Your task to perform on an android device: turn off picture-in-picture Image 0: 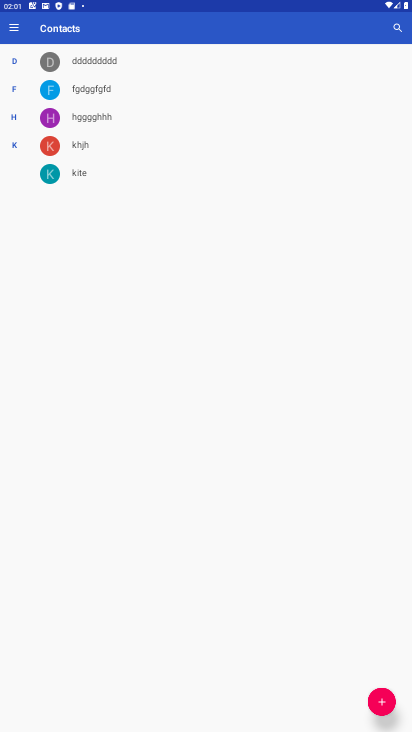
Step 0: press home button
Your task to perform on an android device: turn off picture-in-picture Image 1: 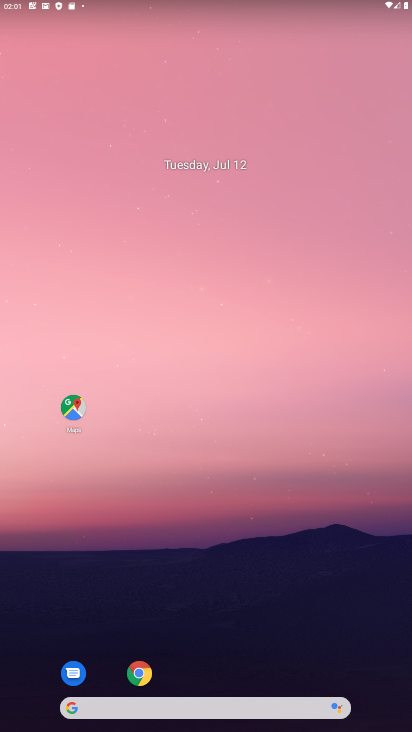
Step 1: click (141, 671)
Your task to perform on an android device: turn off picture-in-picture Image 2: 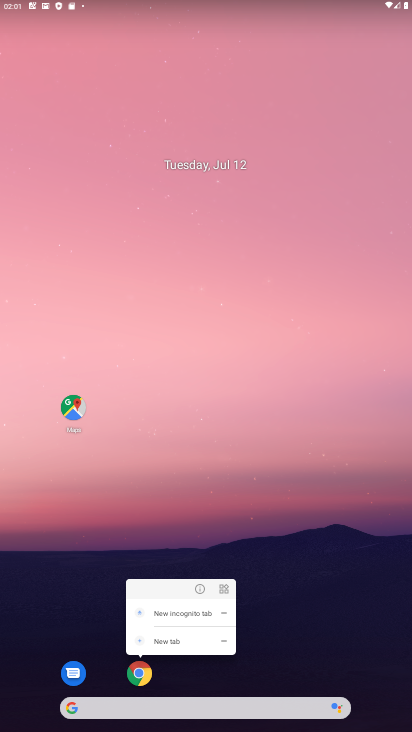
Step 2: click (197, 586)
Your task to perform on an android device: turn off picture-in-picture Image 3: 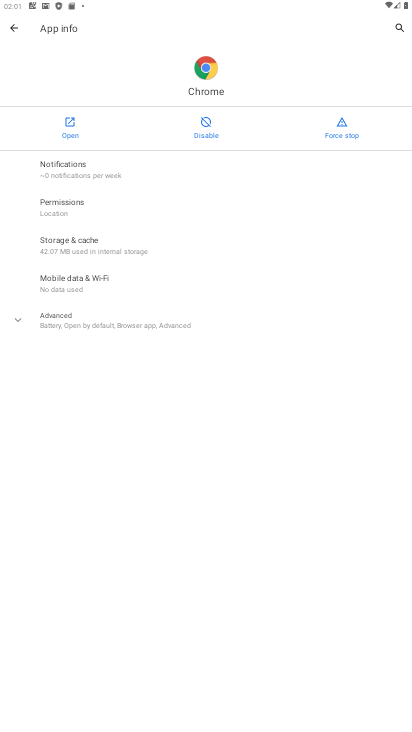
Step 3: click (17, 317)
Your task to perform on an android device: turn off picture-in-picture Image 4: 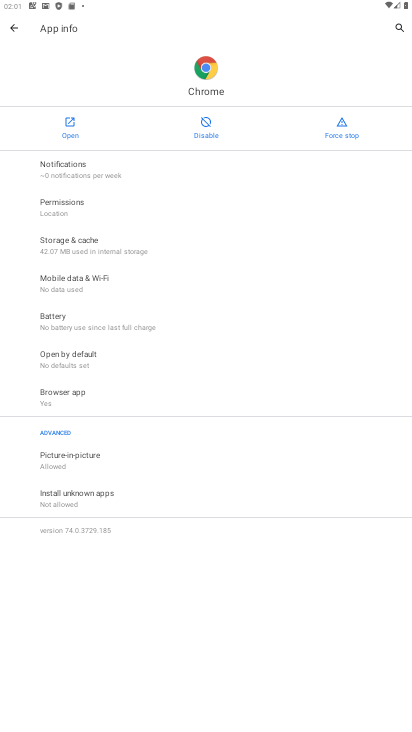
Step 4: click (81, 459)
Your task to perform on an android device: turn off picture-in-picture Image 5: 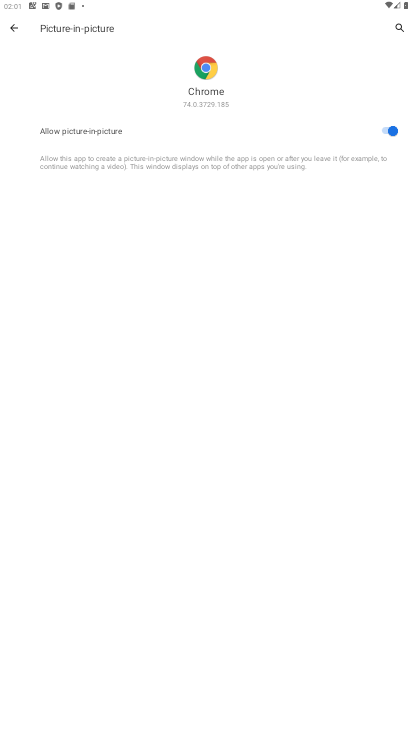
Step 5: click (391, 129)
Your task to perform on an android device: turn off picture-in-picture Image 6: 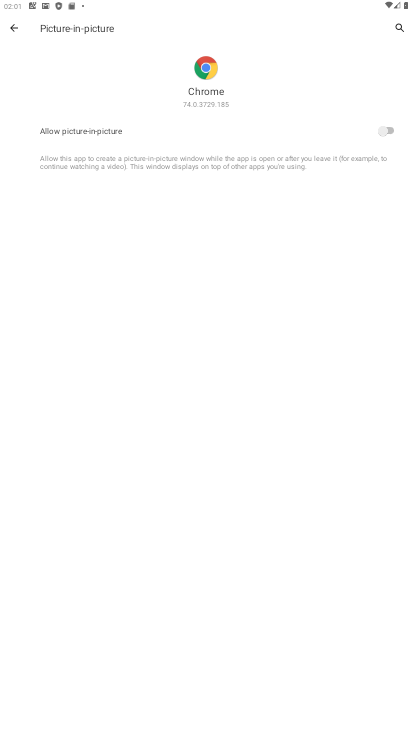
Step 6: task complete